Your task to perform on an android device: Open Youtube and go to "Your channel" Image 0: 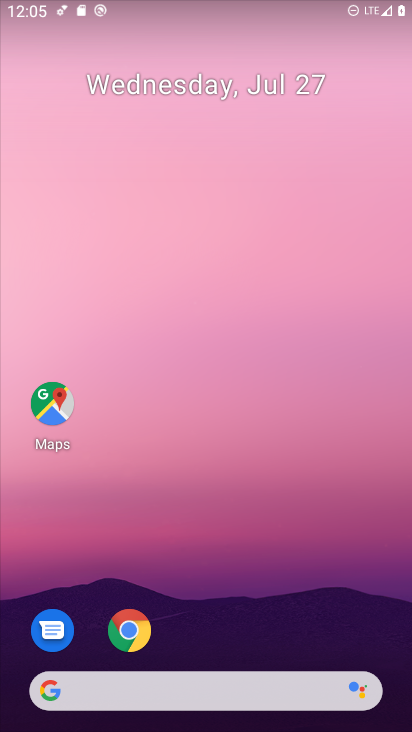
Step 0: drag from (389, 647) to (318, 65)
Your task to perform on an android device: Open Youtube and go to "Your channel" Image 1: 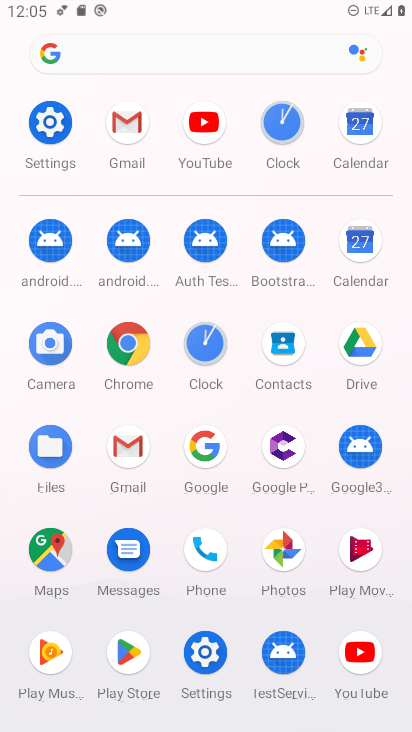
Step 1: click (360, 653)
Your task to perform on an android device: Open Youtube and go to "Your channel" Image 2: 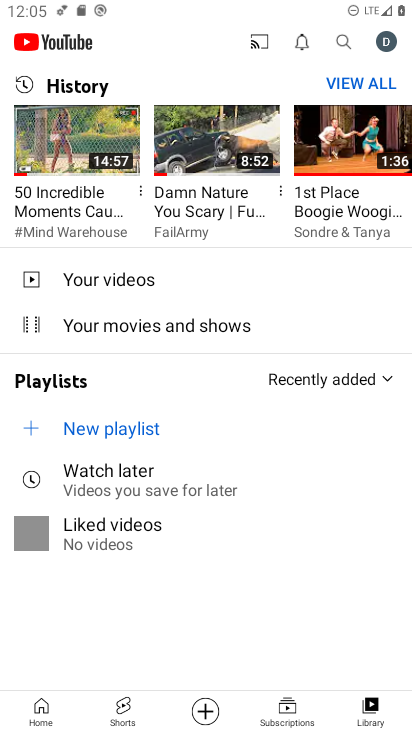
Step 2: click (387, 41)
Your task to perform on an android device: Open Youtube and go to "Your channel" Image 3: 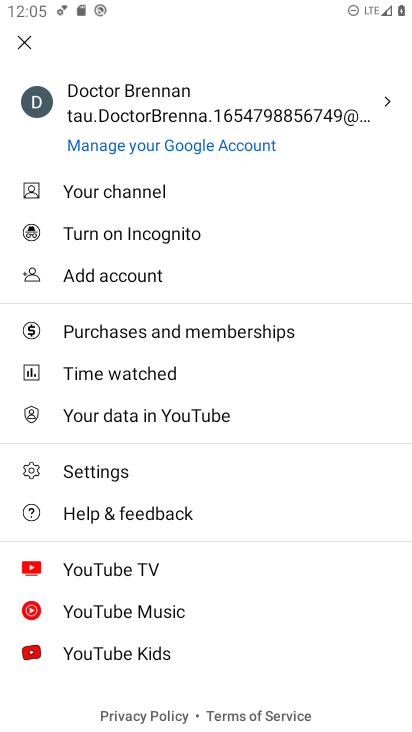
Step 3: click (88, 190)
Your task to perform on an android device: Open Youtube and go to "Your channel" Image 4: 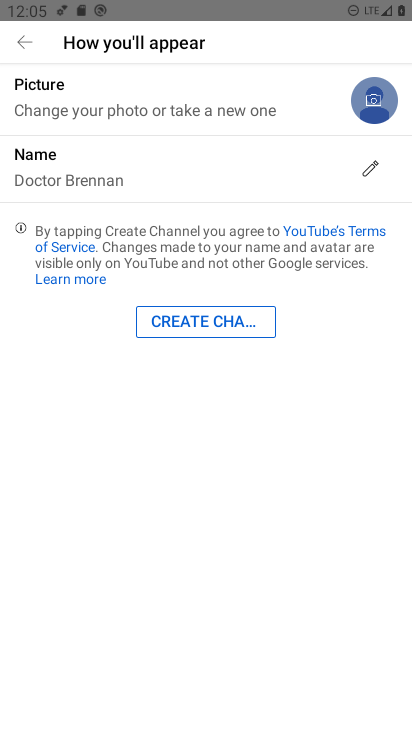
Step 4: task complete